Your task to perform on an android device: Open calendar and show me the fourth week of next month Image 0: 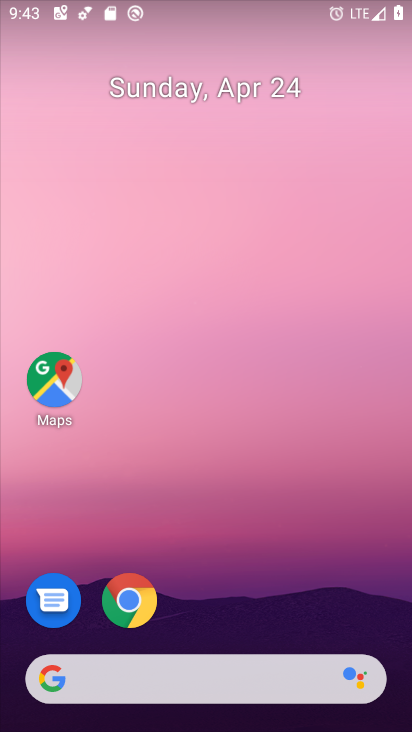
Step 0: drag from (223, 626) to (310, 8)
Your task to perform on an android device: Open calendar and show me the fourth week of next month Image 1: 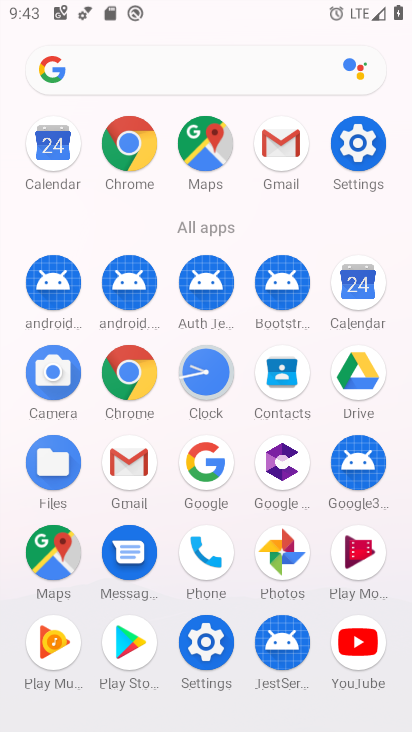
Step 1: click (353, 293)
Your task to perform on an android device: Open calendar and show me the fourth week of next month Image 2: 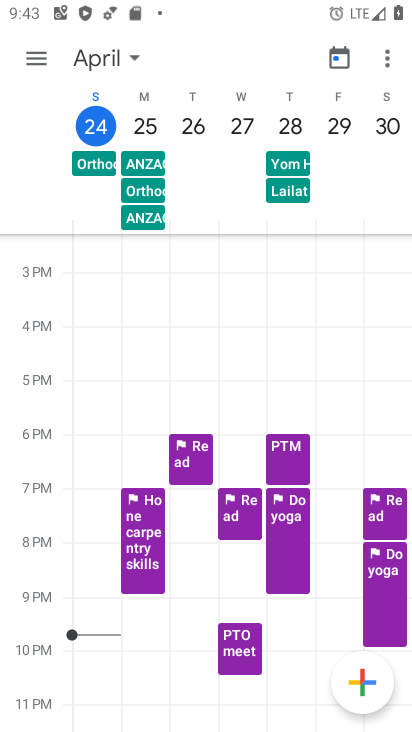
Step 2: task complete